Your task to perform on an android device: Search for "dell xps" on costco.com, select the first entry, and add it to the cart. Image 0: 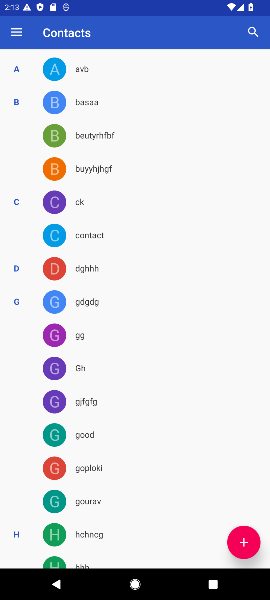
Step 0: press home button
Your task to perform on an android device: Search for "dell xps" on costco.com, select the first entry, and add it to the cart. Image 1: 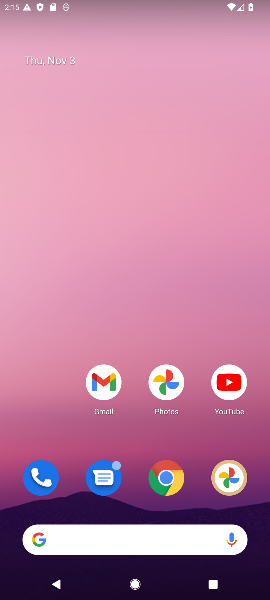
Step 1: click (164, 492)
Your task to perform on an android device: Search for "dell xps" on costco.com, select the first entry, and add it to the cart. Image 2: 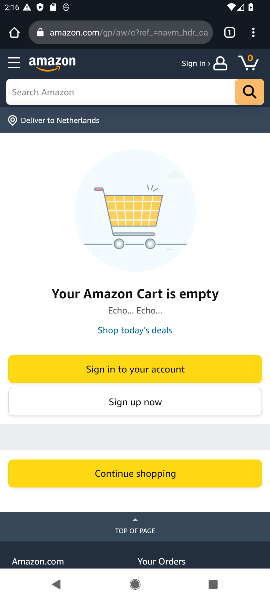
Step 2: click (103, 39)
Your task to perform on an android device: Search for "dell xps" on costco.com, select the first entry, and add it to the cart. Image 3: 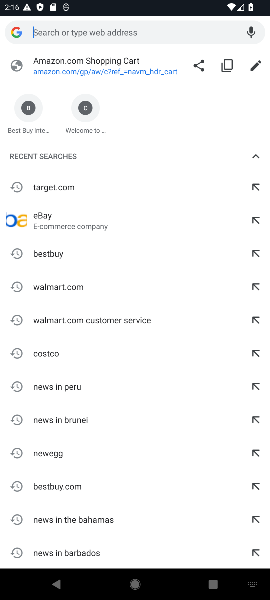
Step 3: type "costco.com"
Your task to perform on an android device: Search for "dell xps" on costco.com, select the first entry, and add it to the cart. Image 4: 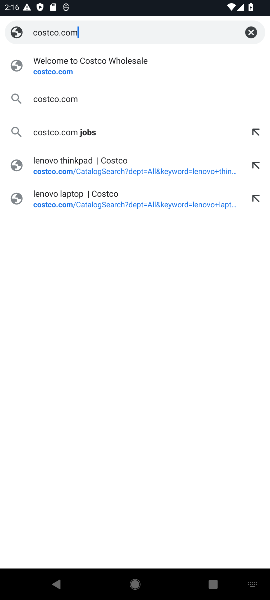
Step 4: click (51, 72)
Your task to perform on an android device: Search for "dell xps" on costco.com, select the first entry, and add it to the cart. Image 5: 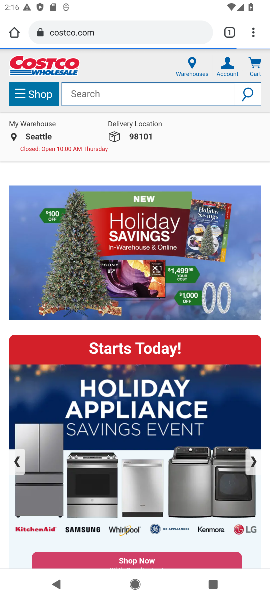
Step 5: click (108, 95)
Your task to perform on an android device: Search for "dell xps" on costco.com, select the first entry, and add it to the cart. Image 6: 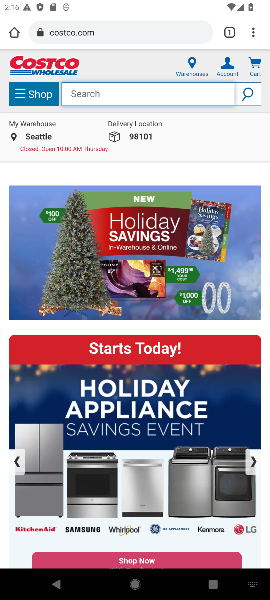
Step 6: type "dell xps"
Your task to perform on an android device: Search for "dell xps" on costco.com, select the first entry, and add it to the cart. Image 7: 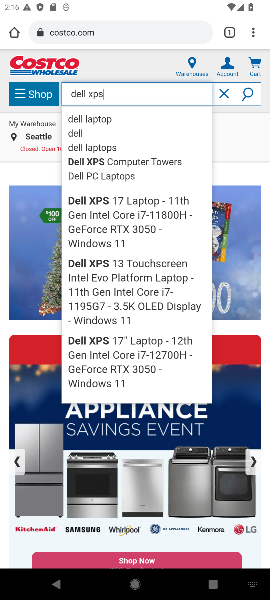
Step 7: click (249, 96)
Your task to perform on an android device: Search for "dell xps" on costco.com, select the first entry, and add it to the cart. Image 8: 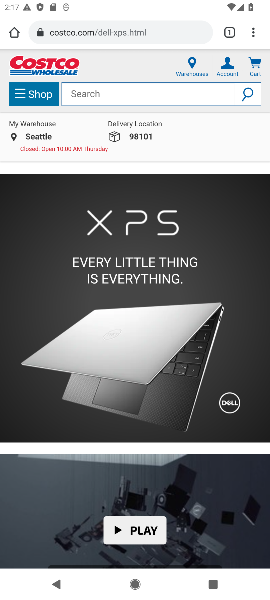
Step 8: drag from (139, 362) to (169, 189)
Your task to perform on an android device: Search for "dell xps" on costco.com, select the first entry, and add it to the cart. Image 9: 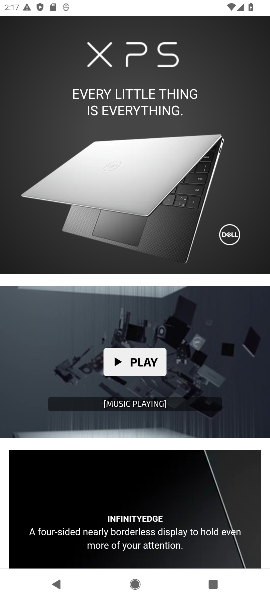
Step 9: drag from (159, 368) to (158, 170)
Your task to perform on an android device: Search for "dell xps" on costco.com, select the first entry, and add it to the cart. Image 10: 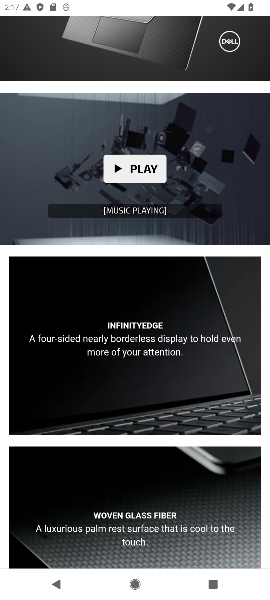
Step 10: drag from (125, 470) to (133, 173)
Your task to perform on an android device: Search for "dell xps" on costco.com, select the first entry, and add it to the cart. Image 11: 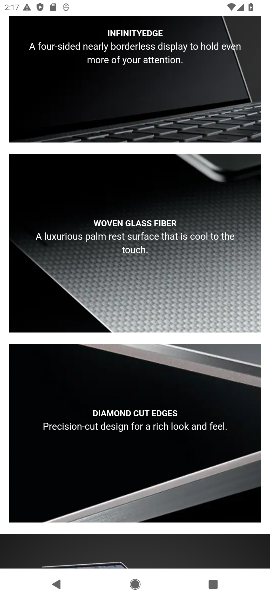
Step 11: drag from (127, 453) to (144, 132)
Your task to perform on an android device: Search for "dell xps" on costco.com, select the first entry, and add it to the cart. Image 12: 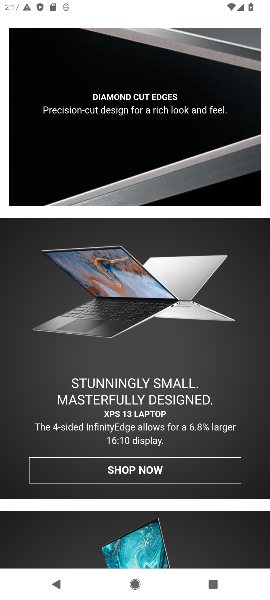
Step 12: click (139, 373)
Your task to perform on an android device: Search for "dell xps" on costco.com, select the first entry, and add it to the cart. Image 13: 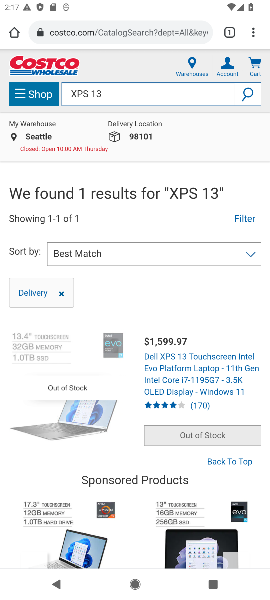
Step 13: task complete